Your task to perform on an android device: Search for seafood restaurants on Google Maps Image 0: 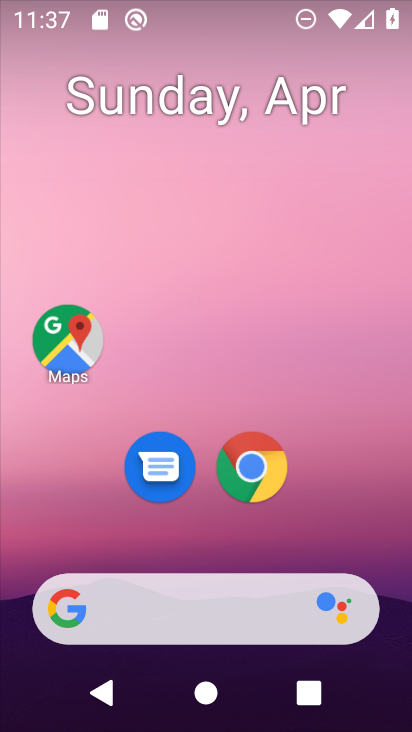
Step 0: drag from (365, 522) to (341, 116)
Your task to perform on an android device: Search for seafood restaurants on Google Maps Image 1: 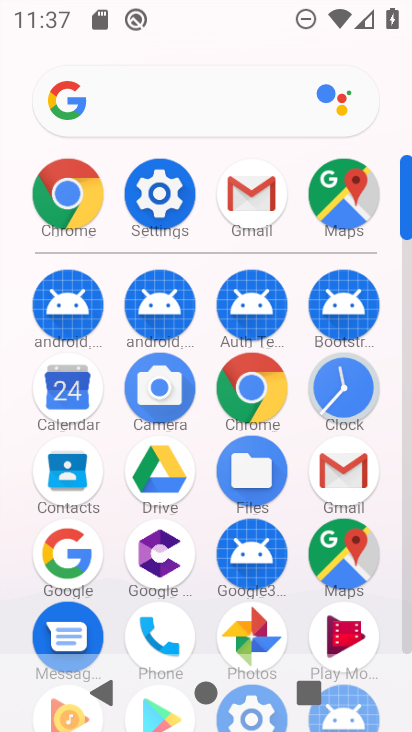
Step 1: click (351, 557)
Your task to perform on an android device: Search for seafood restaurants on Google Maps Image 2: 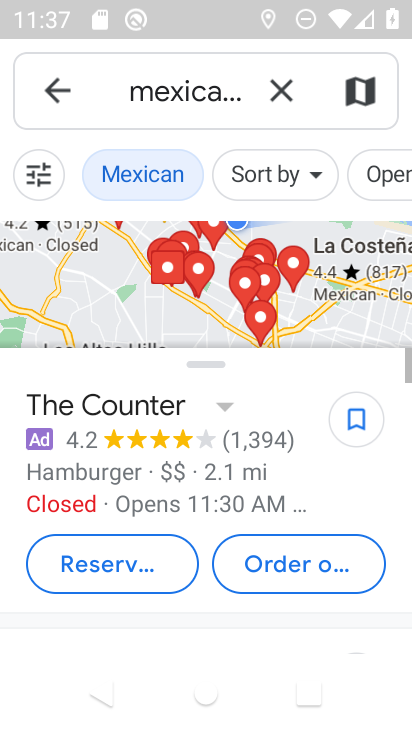
Step 2: click (232, 95)
Your task to perform on an android device: Search for seafood restaurants on Google Maps Image 3: 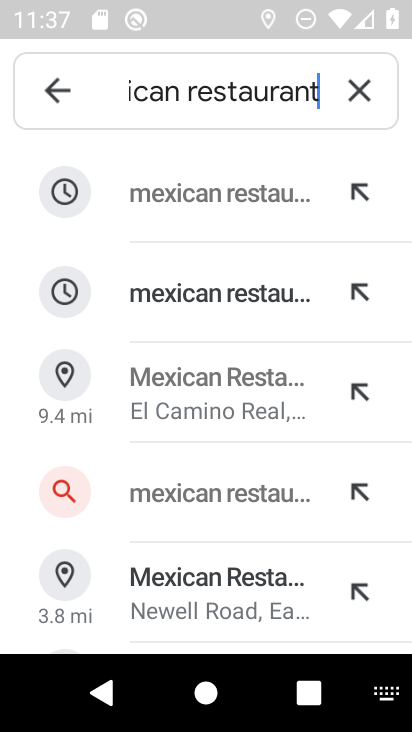
Step 3: click (360, 79)
Your task to perform on an android device: Search for seafood restaurants on Google Maps Image 4: 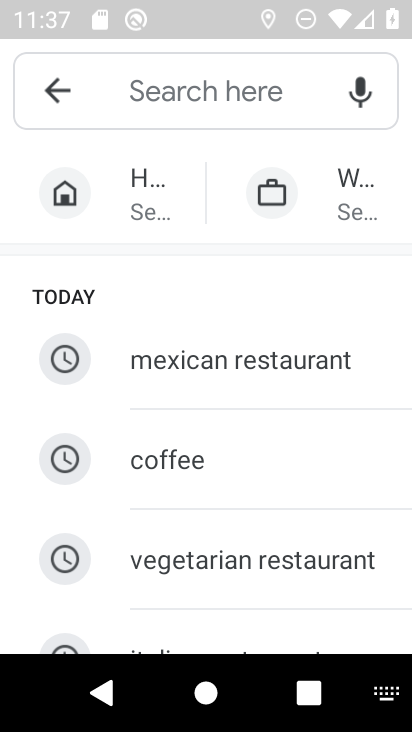
Step 4: type "seafood restaurants"
Your task to perform on an android device: Search for seafood restaurants on Google Maps Image 5: 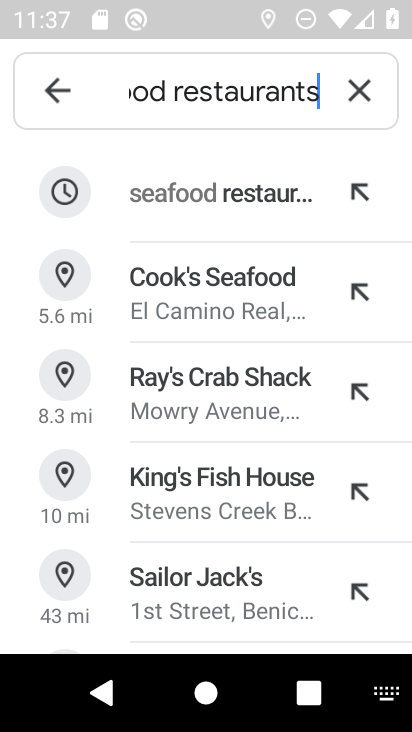
Step 5: click (213, 195)
Your task to perform on an android device: Search for seafood restaurants on Google Maps Image 6: 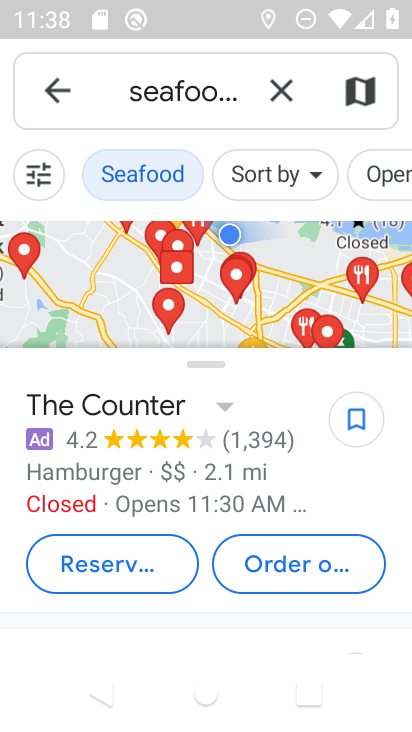
Step 6: task complete